Your task to perform on an android device: find which apps use the phone's location Image 0: 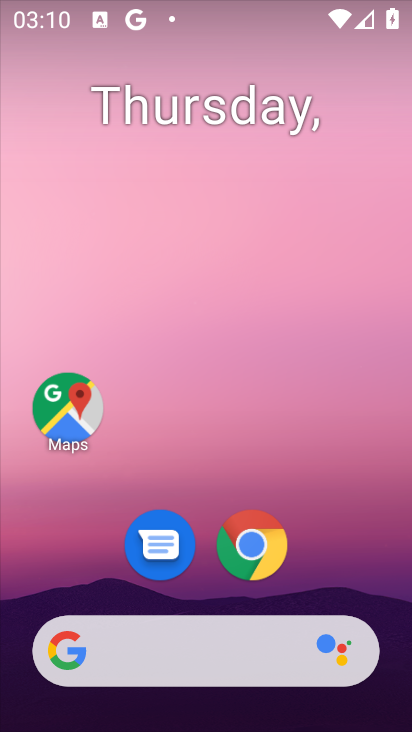
Step 0: drag from (241, 709) to (306, 83)
Your task to perform on an android device: find which apps use the phone's location Image 1: 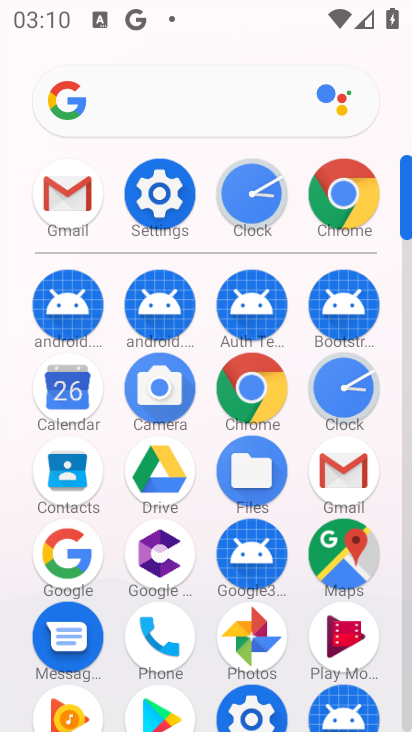
Step 1: click (166, 188)
Your task to perform on an android device: find which apps use the phone's location Image 2: 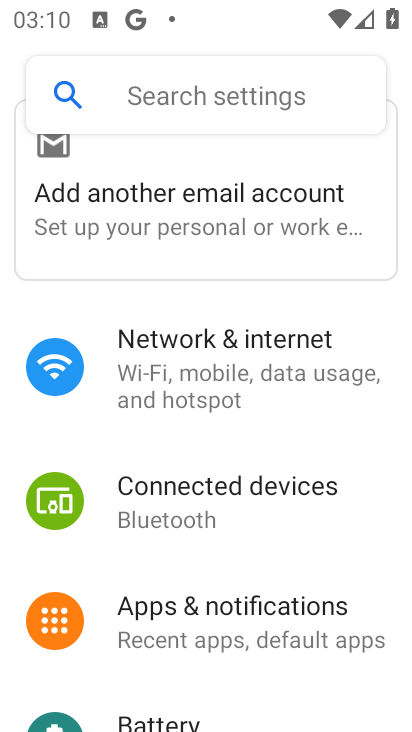
Step 2: drag from (234, 656) to (251, 51)
Your task to perform on an android device: find which apps use the phone's location Image 3: 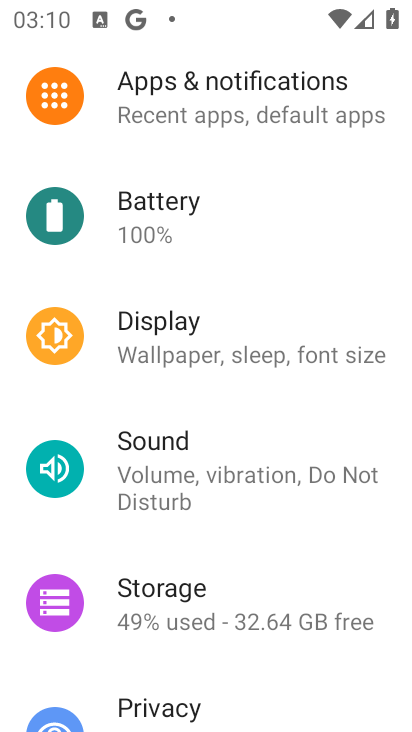
Step 3: drag from (298, 584) to (279, 167)
Your task to perform on an android device: find which apps use the phone's location Image 4: 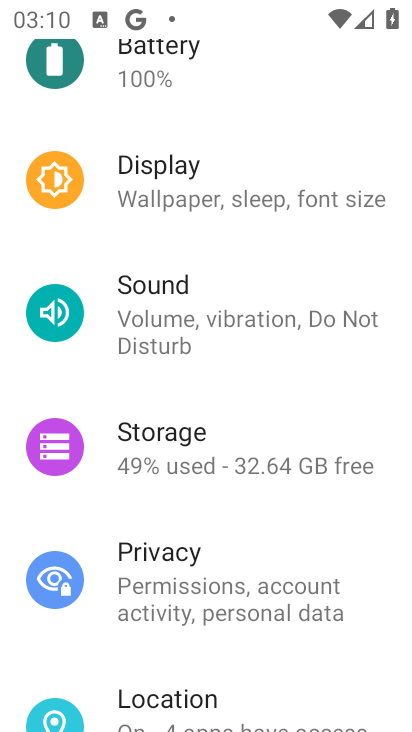
Step 4: click (203, 711)
Your task to perform on an android device: find which apps use the phone's location Image 5: 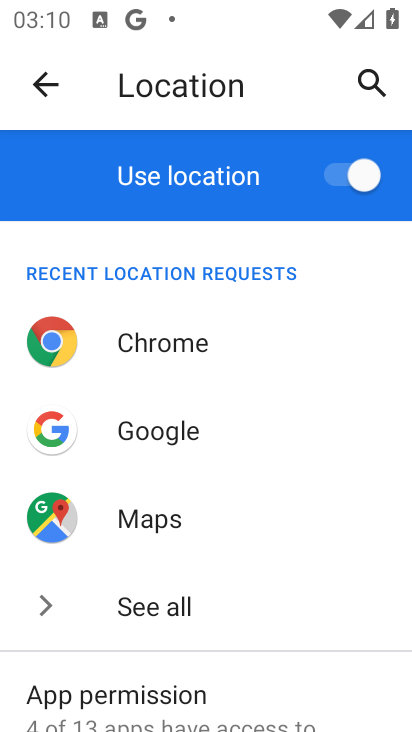
Step 5: task complete